Your task to perform on an android device: toggle sleep mode Image 0: 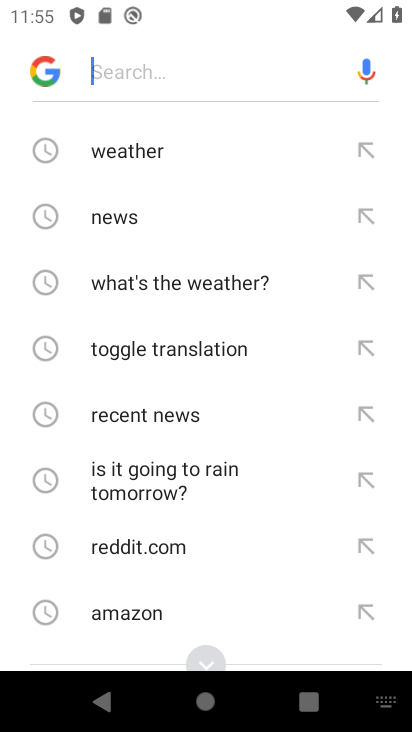
Step 0: press home button
Your task to perform on an android device: toggle sleep mode Image 1: 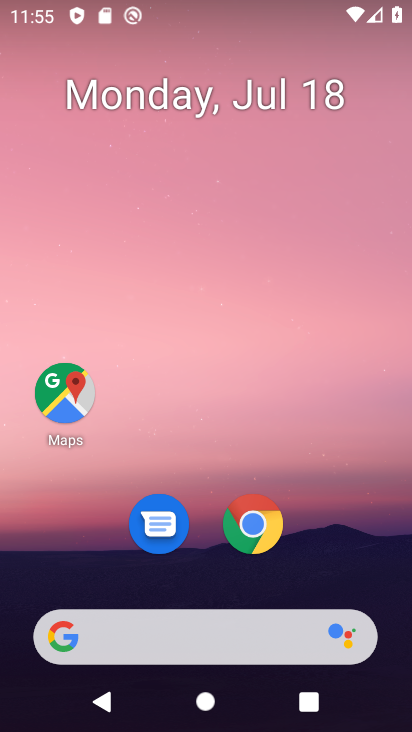
Step 1: drag from (219, 594) to (194, 90)
Your task to perform on an android device: toggle sleep mode Image 2: 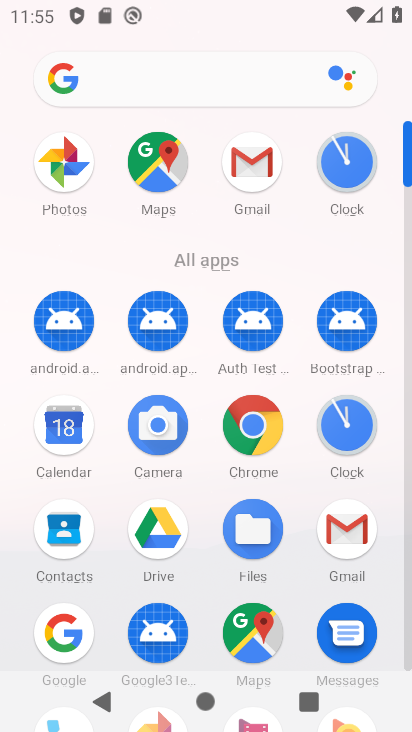
Step 2: drag from (201, 584) to (197, 66)
Your task to perform on an android device: toggle sleep mode Image 3: 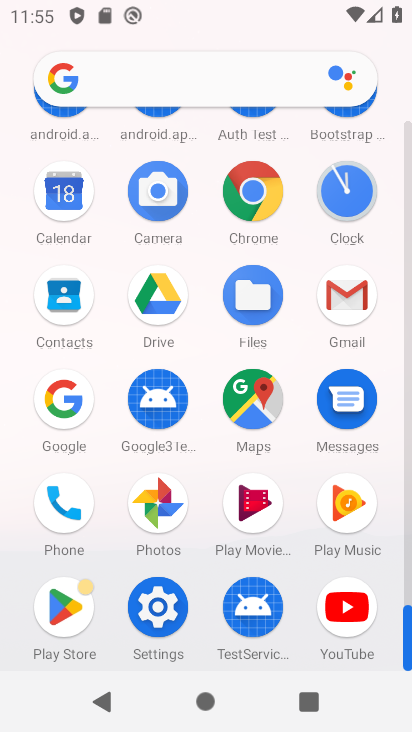
Step 3: click (172, 615)
Your task to perform on an android device: toggle sleep mode Image 4: 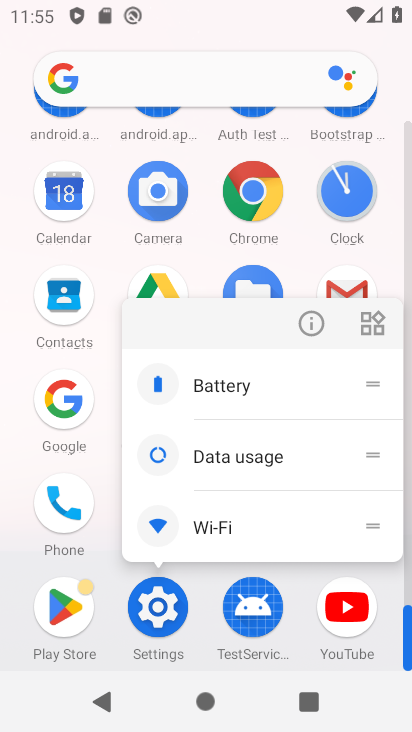
Step 4: click (161, 613)
Your task to perform on an android device: toggle sleep mode Image 5: 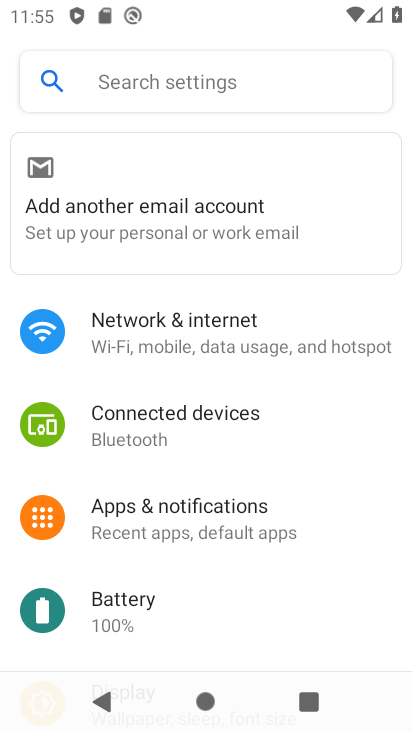
Step 5: task complete